Your task to perform on an android device: Go to Google maps Image 0: 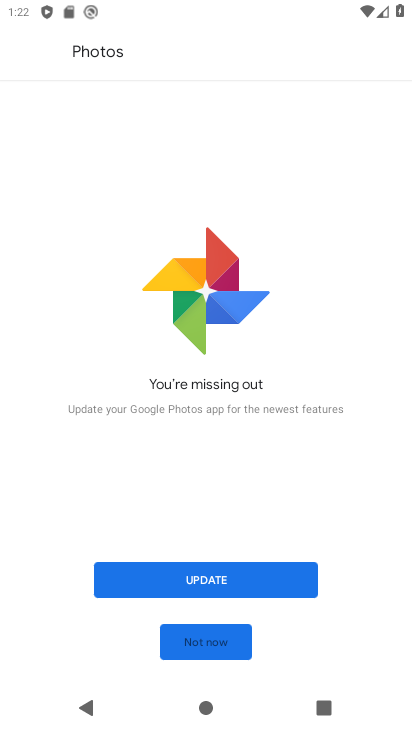
Step 0: press home button
Your task to perform on an android device: Go to Google maps Image 1: 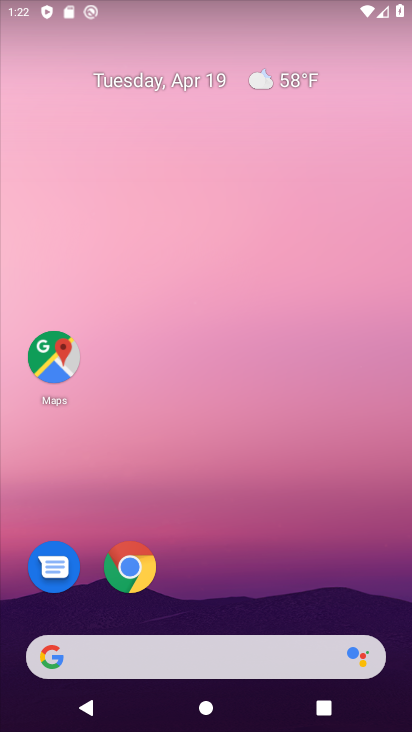
Step 1: click (54, 369)
Your task to perform on an android device: Go to Google maps Image 2: 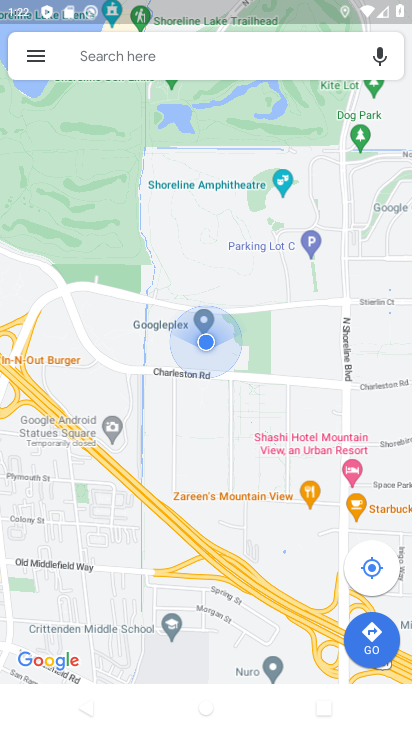
Step 2: task complete